Your task to perform on an android device: Open settings on Google Maps Image 0: 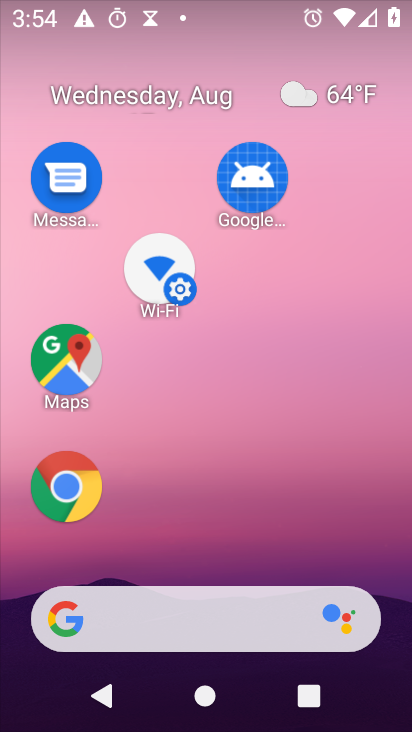
Step 0: press home button
Your task to perform on an android device: Open settings on Google Maps Image 1: 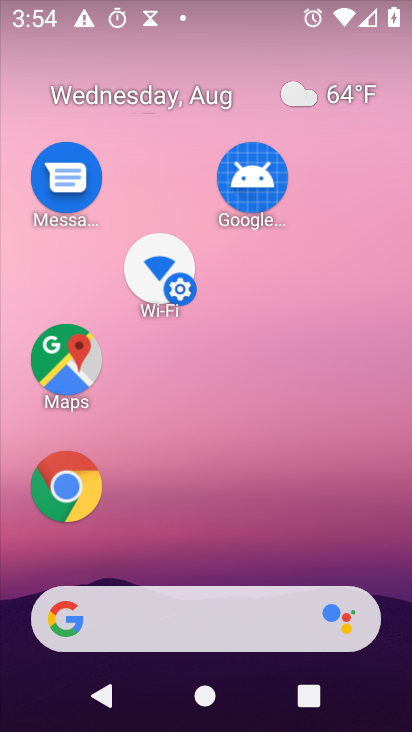
Step 1: click (70, 367)
Your task to perform on an android device: Open settings on Google Maps Image 2: 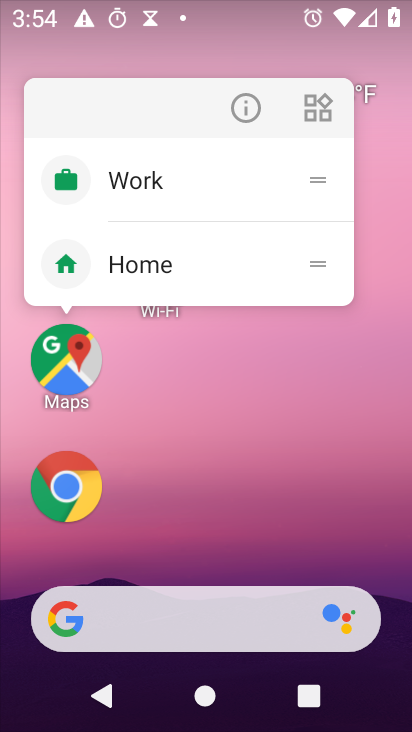
Step 2: click (70, 367)
Your task to perform on an android device: Open settings on Google Maps Image 3: 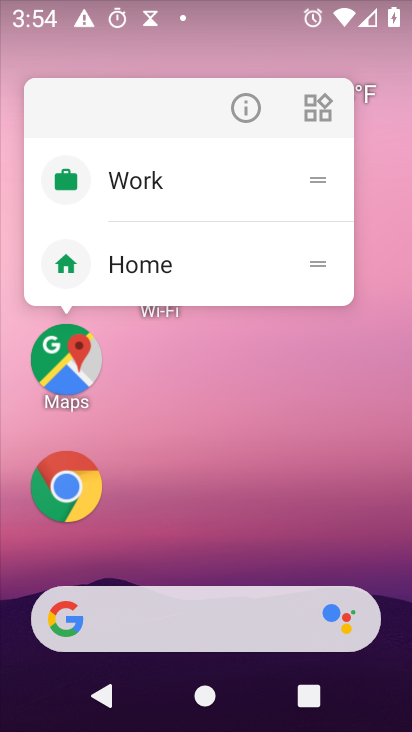
Step 3: click (70, 367)
Your task to perform on an android device: Open settings on Google Maps Image 4: 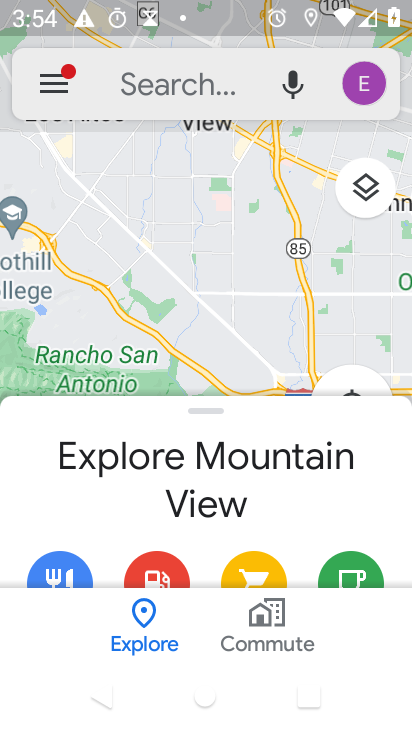
Step 4: click (62, 73)
Your task to perform on an android device: Open settings on Google Maps Image 5: 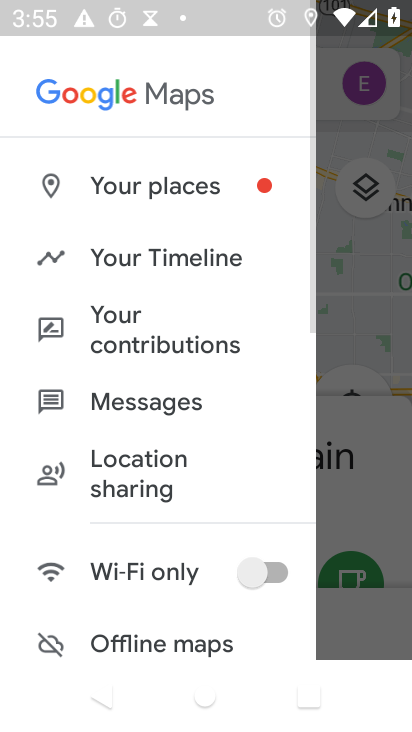
Step 5: drag from (212, 404) to (209, 113)
Your task to perform on an android device: Open settings on Google Maps Image 6: 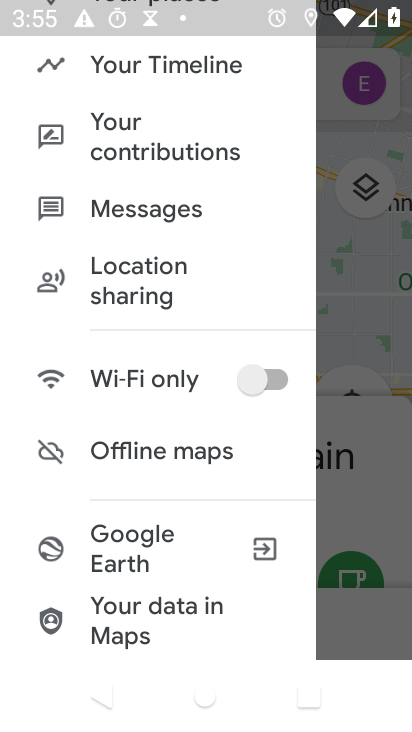
Step 6: drag from (233, 612) to (219, 200)
Your task to perform on an android device: Open settings on Google Maps Image 7: 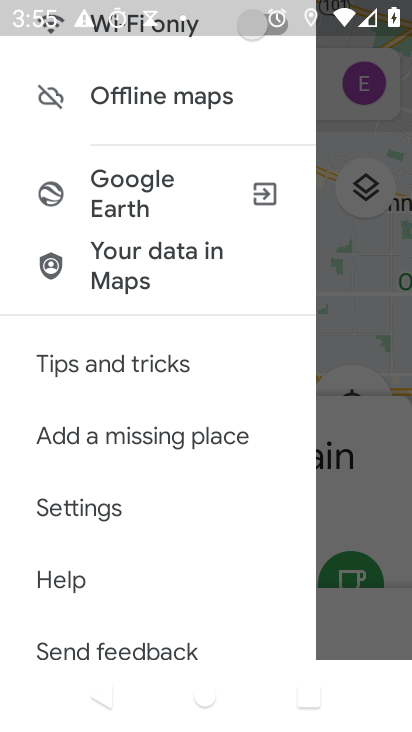
Step 7: click (87, 504)
Your task to perform on an android device: Open settings on Google Maps Image 8: 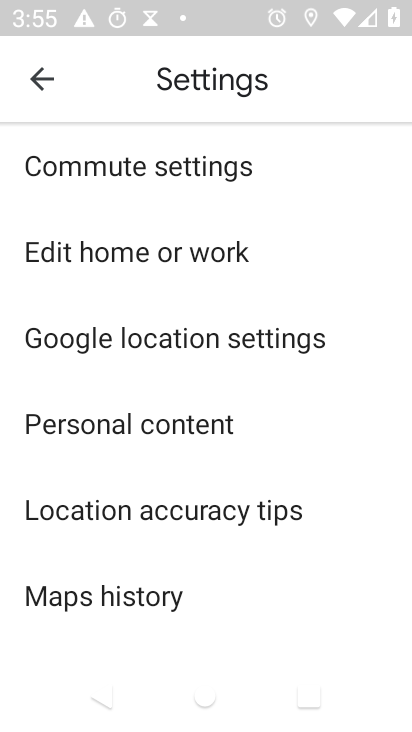
Step 8: task complete